Your task to perform on an android device: open chrome and create a bookmark for the current page Image 0: 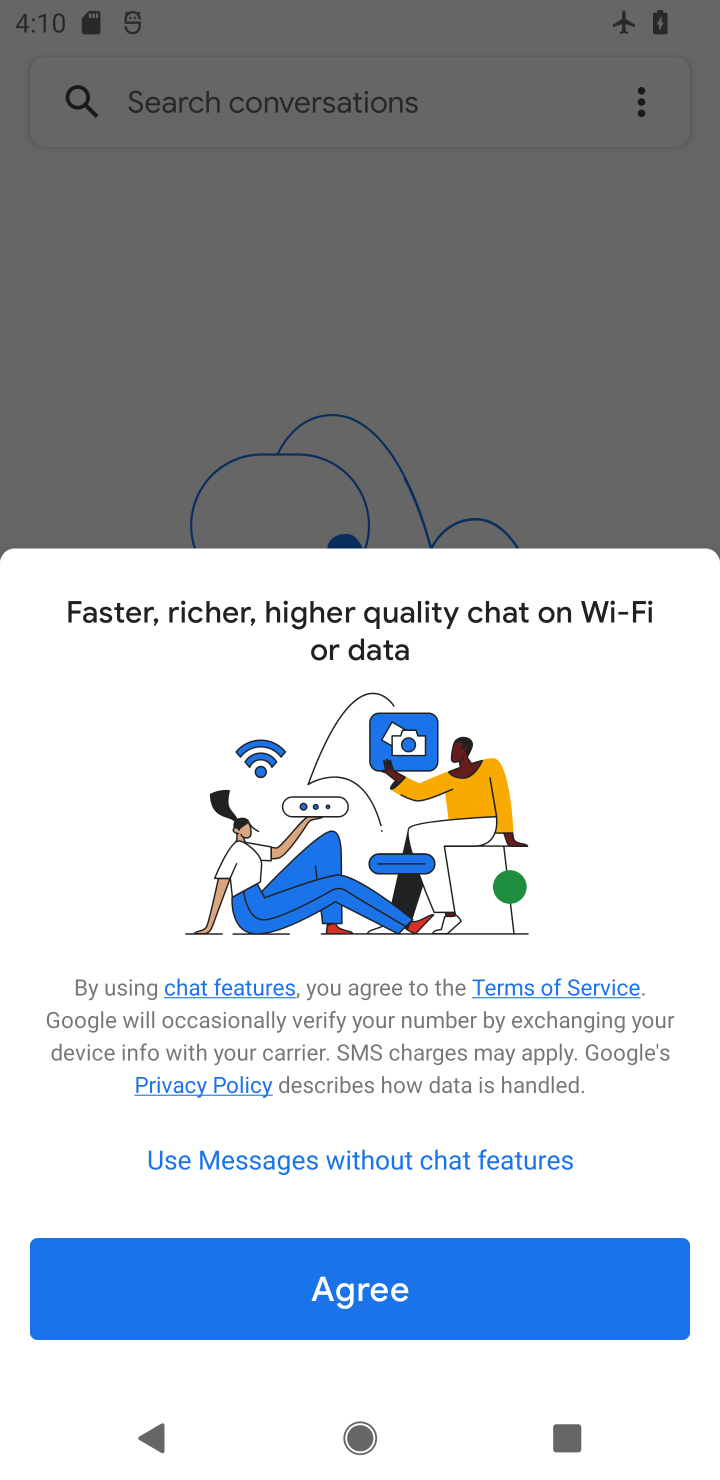
Step 0: press back button
Your task to perform on an android device: open chrome and create a bookmark for the current page Image 1: 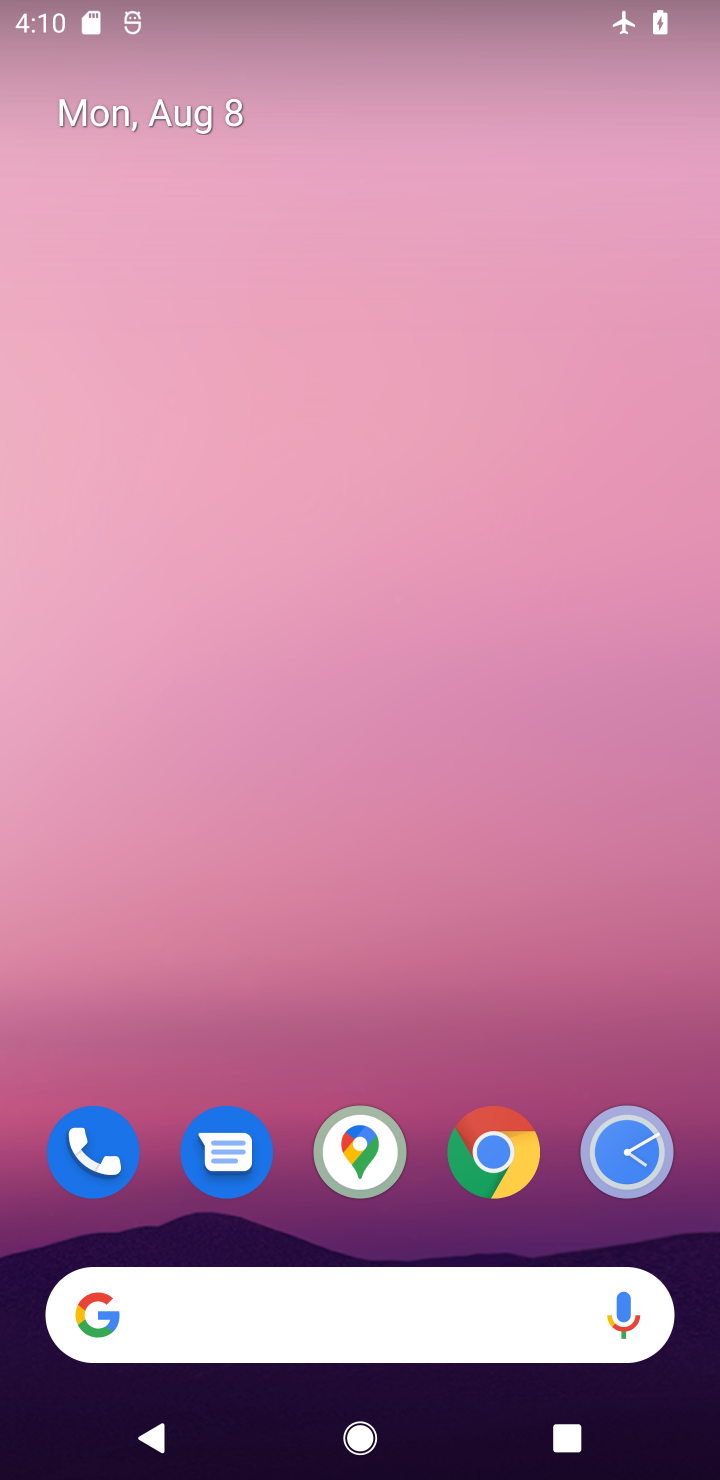
Step 1: drag from (303, 1180) to (423, 100)
Your task to perform on an android device: open chrome and create a bookmark for the current page Image 2: 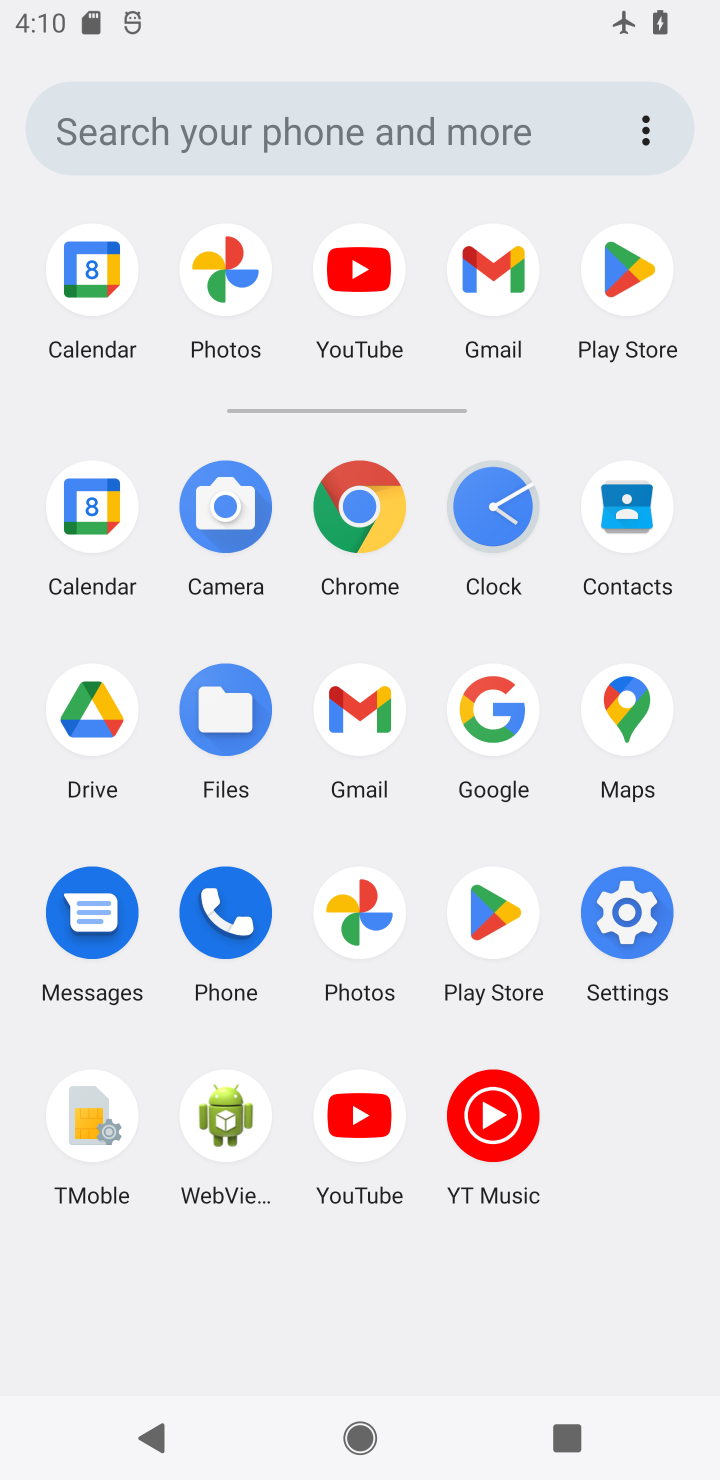
Step 2: click (366, 513)
Your task to perform on an android device: open chrome and create a bookmark for the current page Image 3: 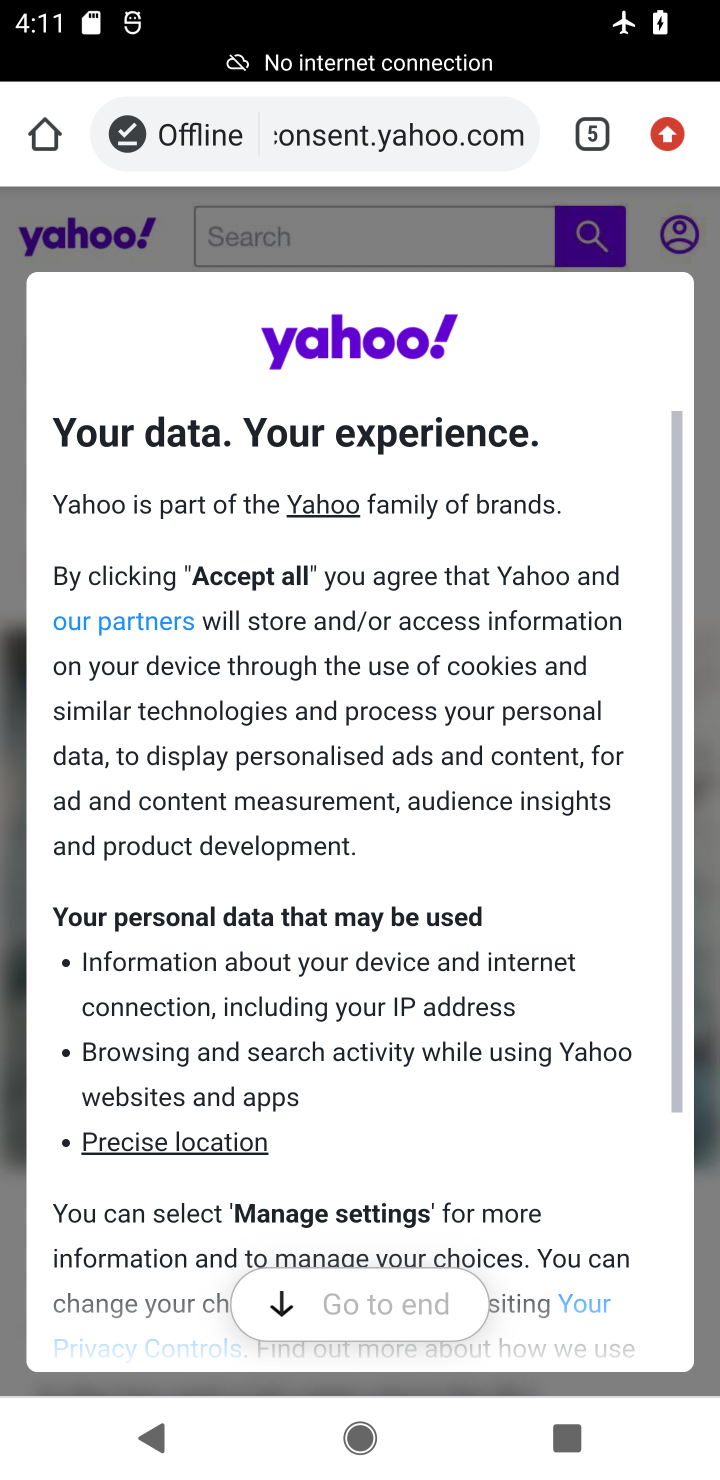
Step 3: task complete